Your task to perform on an android device: toggle show notifications on the lock screen Image 0: 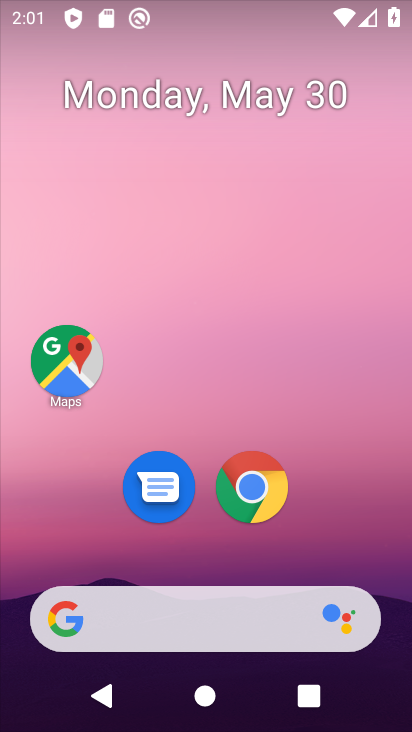
Step 0: drag from (205, 555) to (296, 0)
Your task to perform on an android device: toggle show notifications on the lock screen Image 1: 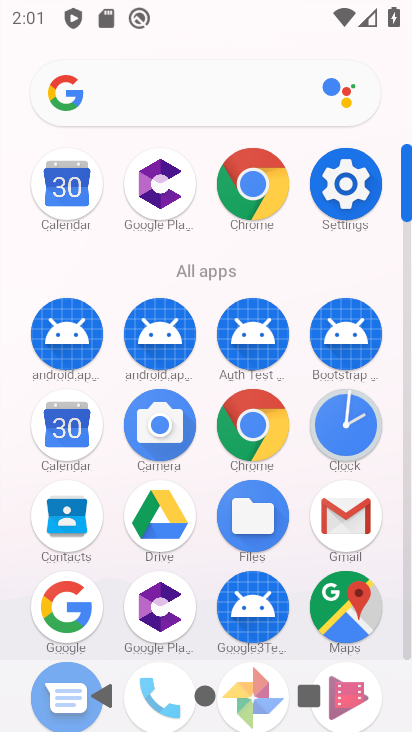
Step 1: click (350, 191)
Your task to perform on an android device: toggle show notifications on the lock screen Image 2: 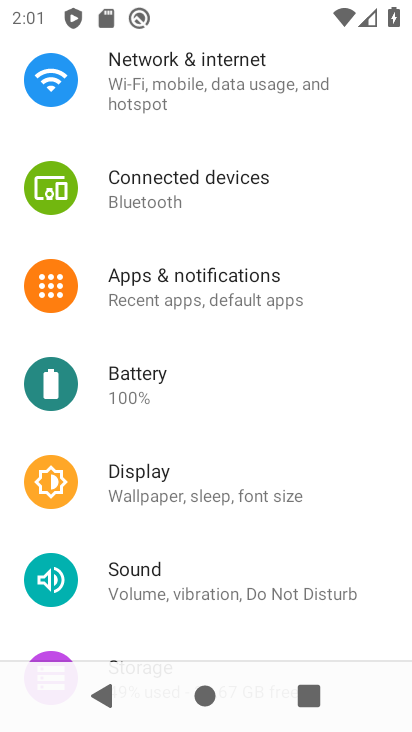
Step 2: click (244, 308)
Your task to perform on an android device: toggle show notifications on the lock screen Image 3: 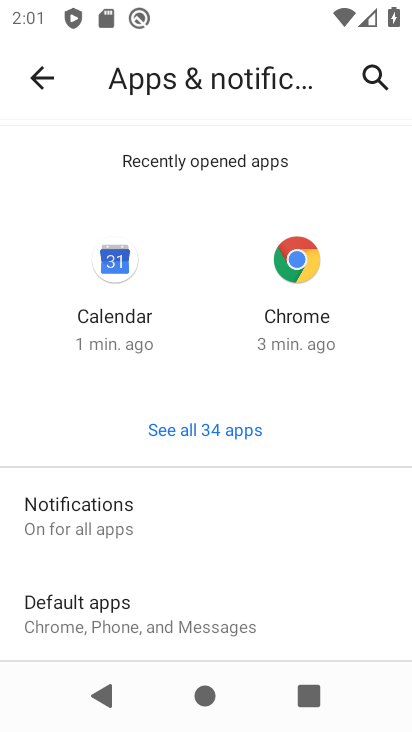
Step 3: click (112, 514)
Your task to perform on an android device: toggle show notifications on the lock screen Image 4: 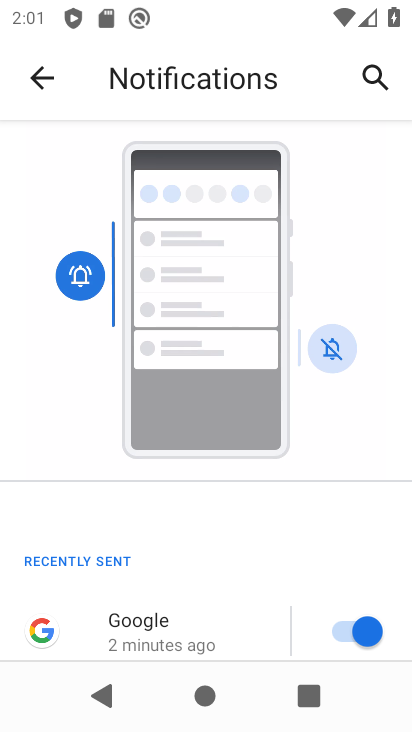
Step 4: drag from (128, 603) to (152, 270)
Your task to perform on an android device: toggle show notifications on the lock screen Image 5: 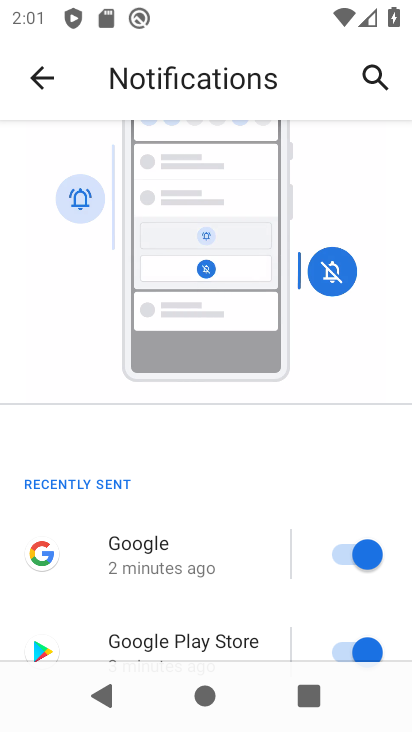
Step 5: drag from (152, 593) to (131, 245)
Your task to perform on an android device: toggle show notifications on the lock screen Image 6: 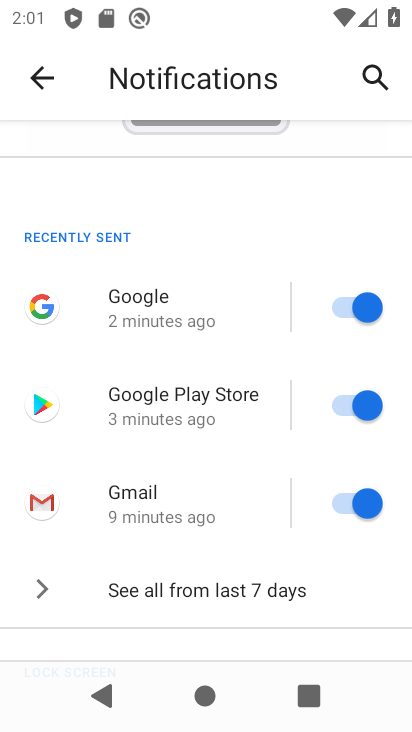
Step 6: drag from (141, 542) to (166, 293)
Your task to perform on an android device: toggle show notifications on the lock screen Image 7: 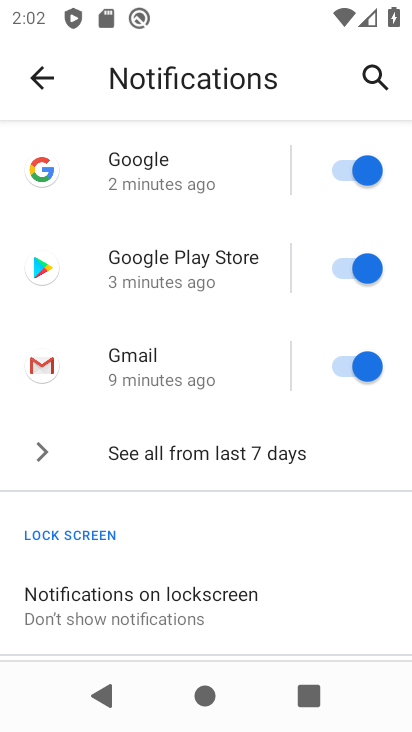
Step 7: drag from (120, 575) to (117, 232)
Your task to perform on an android device: toggle show notifications on the lock screen Image 8: 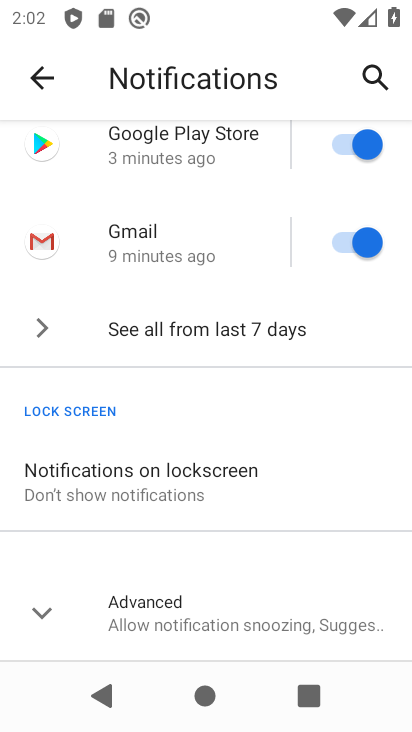
Step 8: click (131, 479)
Your task to perform on an android device: toggle show notifications on the lock screen Image 9: 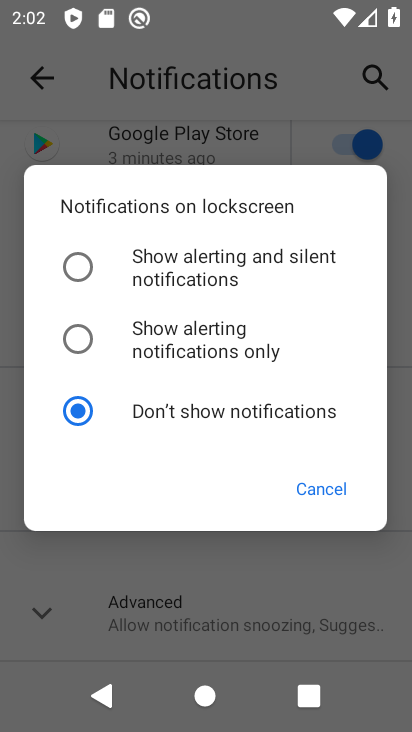
Step 9: click (79, 271)
Your task to perform on an android device: toggle show notifications on the lock screen Image 10: 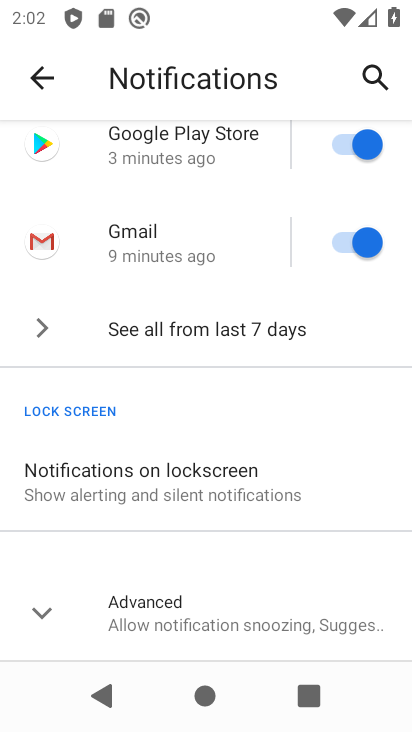
Step 10: task complete